Your task to perform on an android device: Open sound settings Image 0: 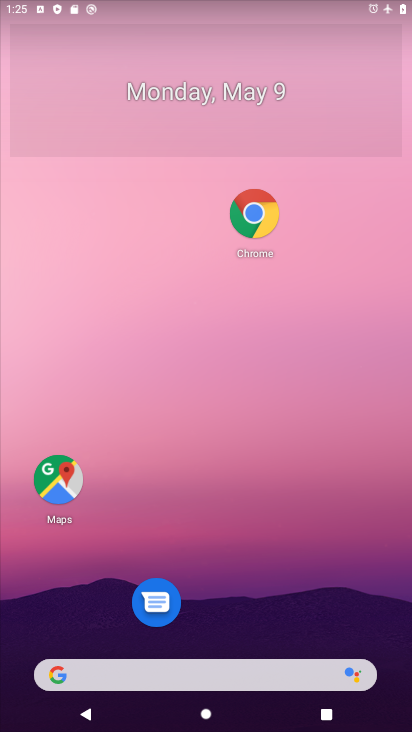
Step 0: drag from (264, 608) to (287, 237)
Your task to perform on an android device: Open sound settings Image 1: 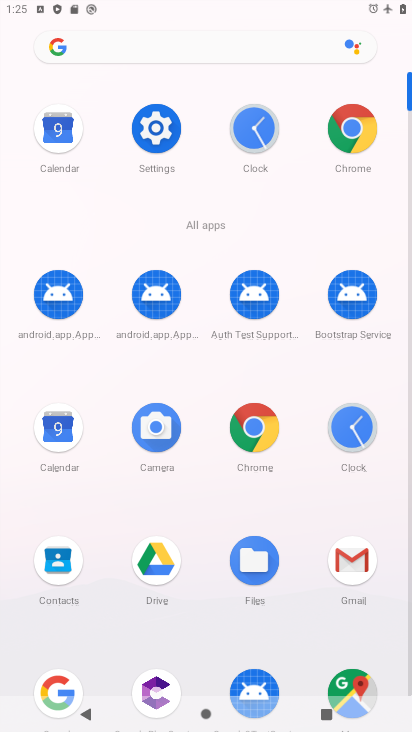
Step 1: click (157, 156)
Your task to perform on an android device: Open sound settings Image 2: 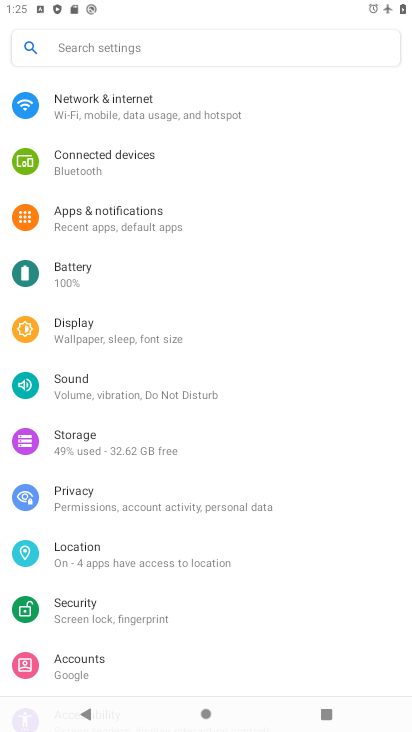
Step 2: click (140, 394)
Your task to perform on an android device: Open sound settings Image 3: 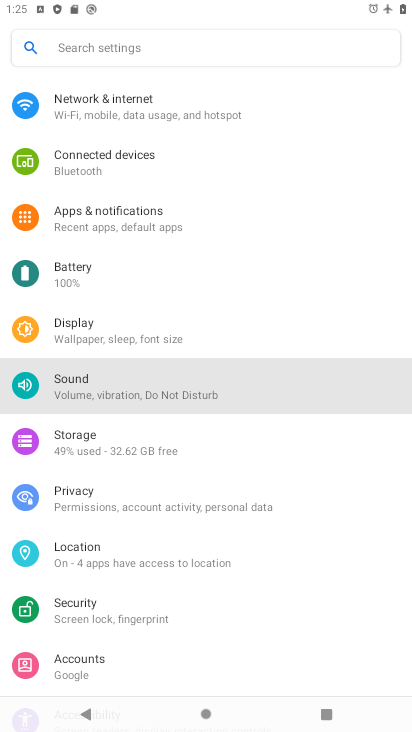
Step 3: task complete